Your task to perform on an android device: Is it going to rain this weekend? Image 0: 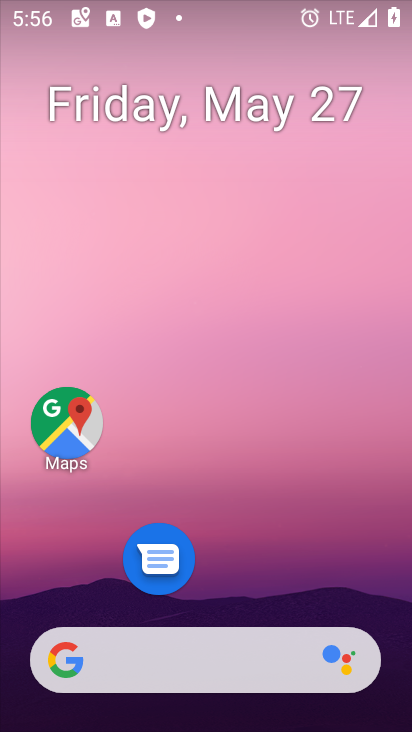
Step 0: drag from (199, 663) to (307, 0)
Your task to perform on an android device: Is it going to rain this weekend? Image 1: 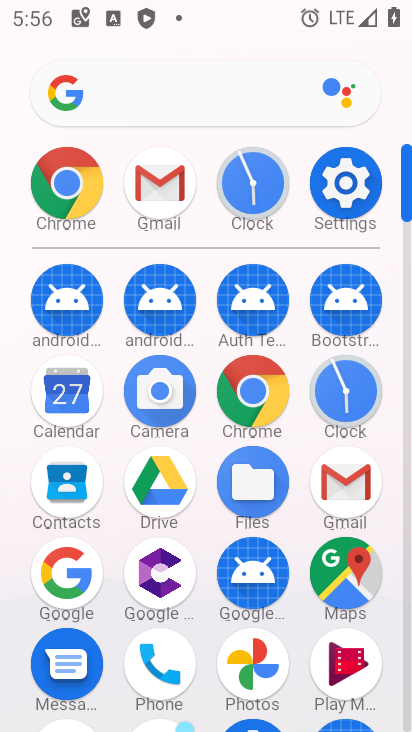
Step 1: press home button
Your task to perform on an android device: Is it going to rain this weekend? Image 2: 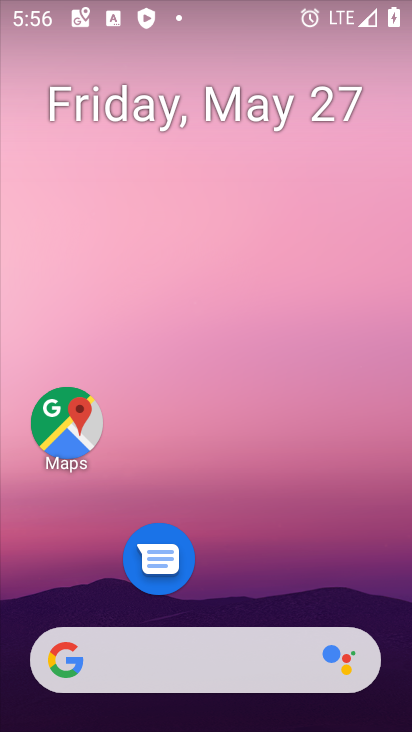
Step 2: drag from (10, 303) to (410, 436)
Your task to perform on an android device: Is it going to rain this weekend? Image 3: 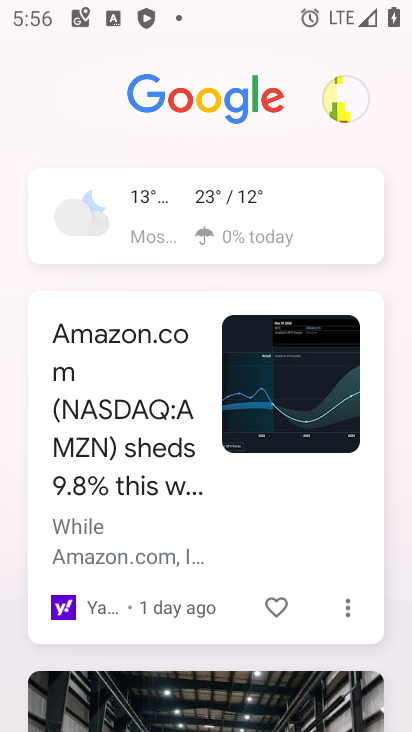
Step 3: click (233, 225)
Your task to perform on an android device: Is it going to rain this weekend? Image 4: 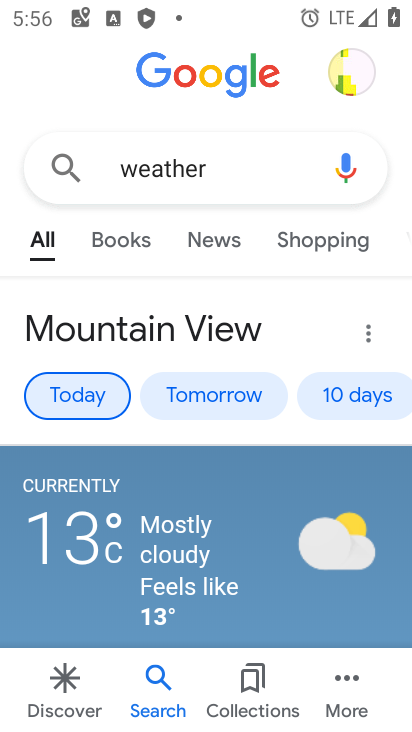
Step 4: click (363, 392)
Your task to perform on an android device: Is it going to rain this weekend? Image 5: 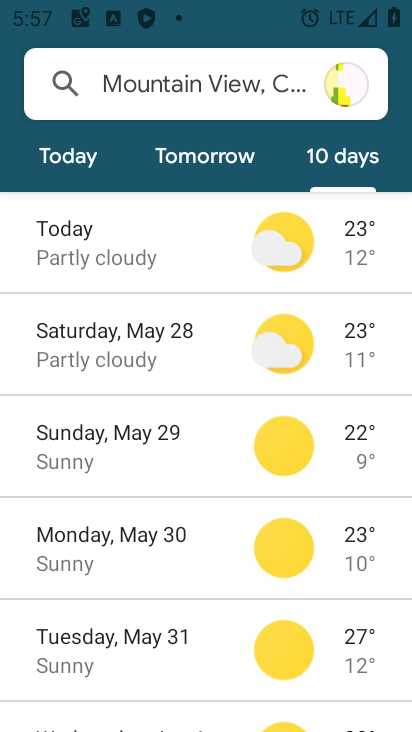
Step 5: task complete